Your task to perform on an android device: toggle location history Image 0: 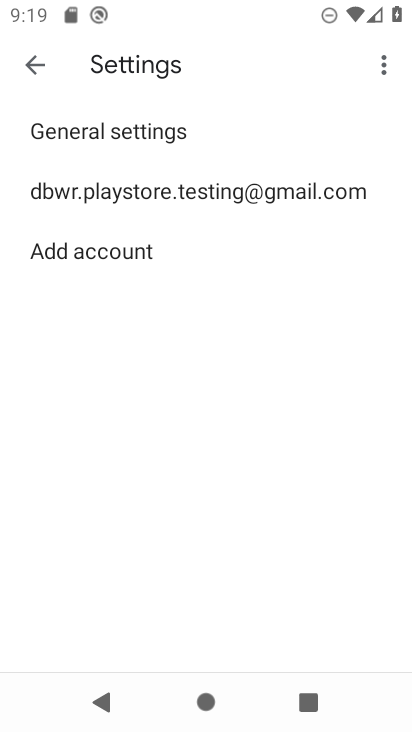
Step 0: press home button
Your task to perform on an android device: toggle location history Image 1: 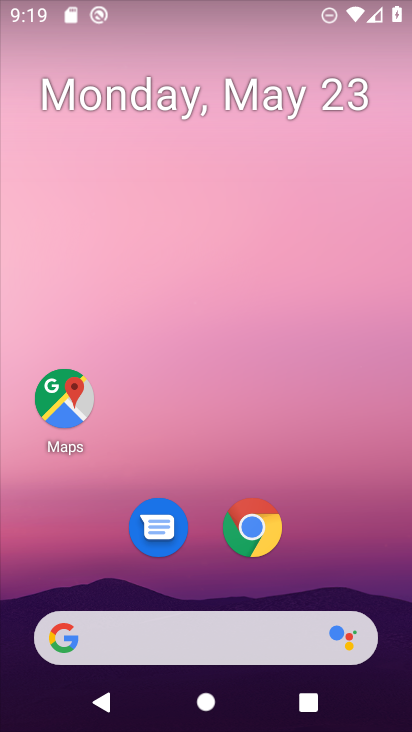
Step 1: drag from (308, 443) to (286, 28)
Your task to perform on an android device: toggle location history Image 2: 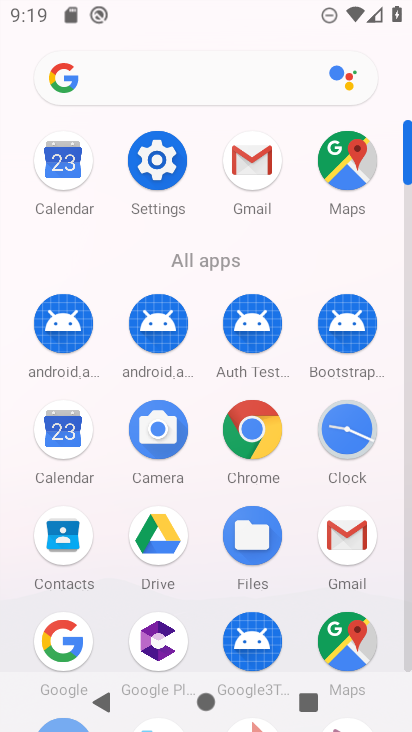
Step 2: click (159, 166)
Your task to perform on an android device: toggle location history Image 3: 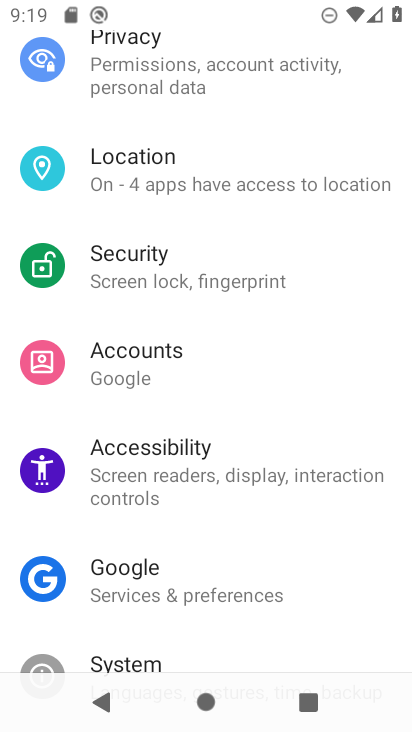
Step 3: click (198, 173)
Your task to perform on an android device: toggle location history Image 4: 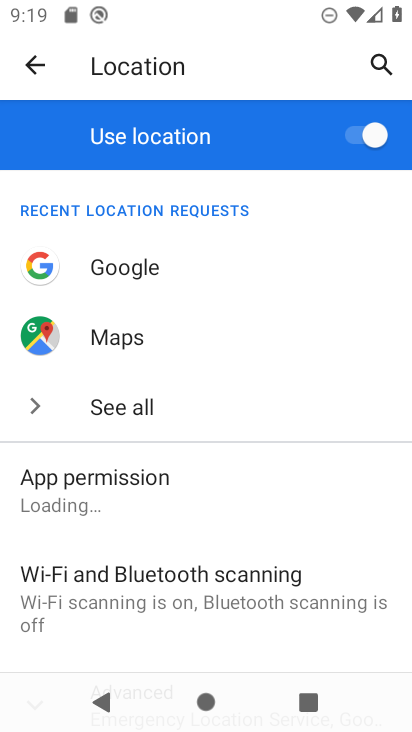
Step 4: drag from (124, 568) to (178, 173)
Your task to perform on an android device: toggle location history Image 5: 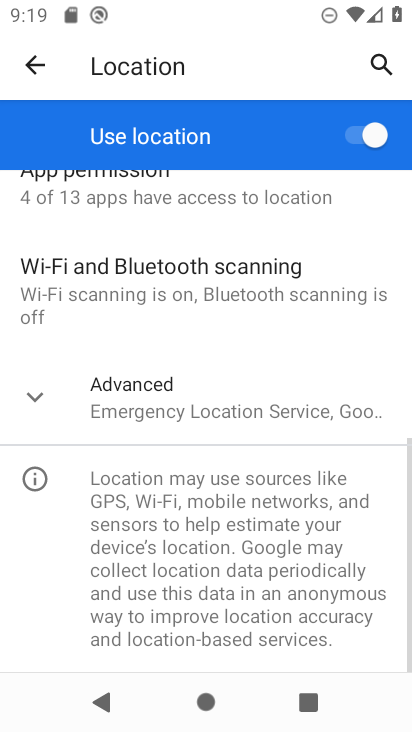
Step 5: click (37, 393)
Your task to perform on an android device: toggle location history Image 6: 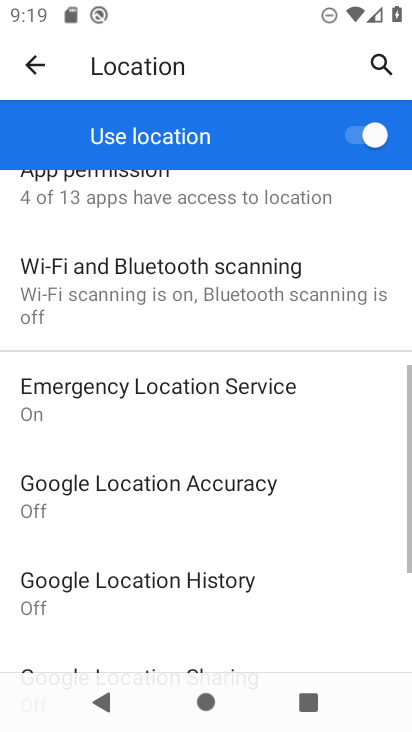
Step 6: drag from (221, 490) to (239, 290)
Your task to perform on an android device: toggle location history Image 7: 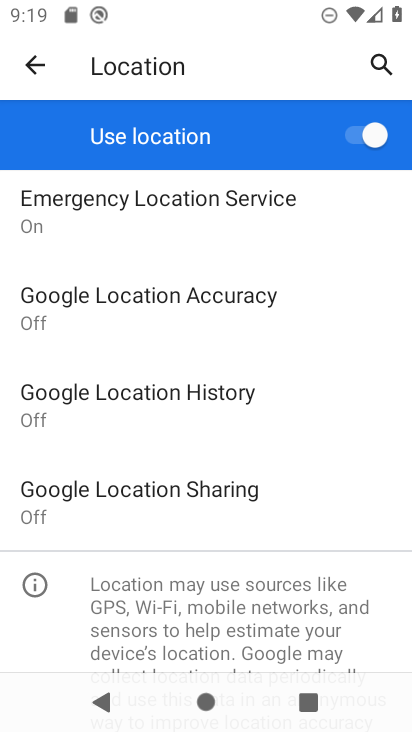
Step 7: click (228, 410)
Your task to perform on an android device: toggle location history Image 8: 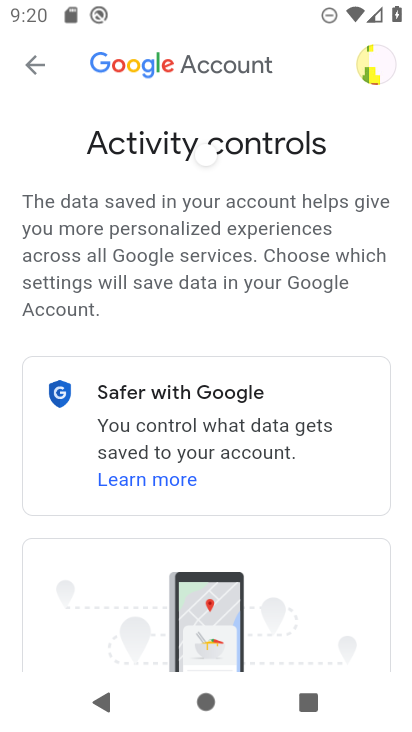
Step 8: task complete